Your task to perform on an android device: Open wifi settings Image 0: 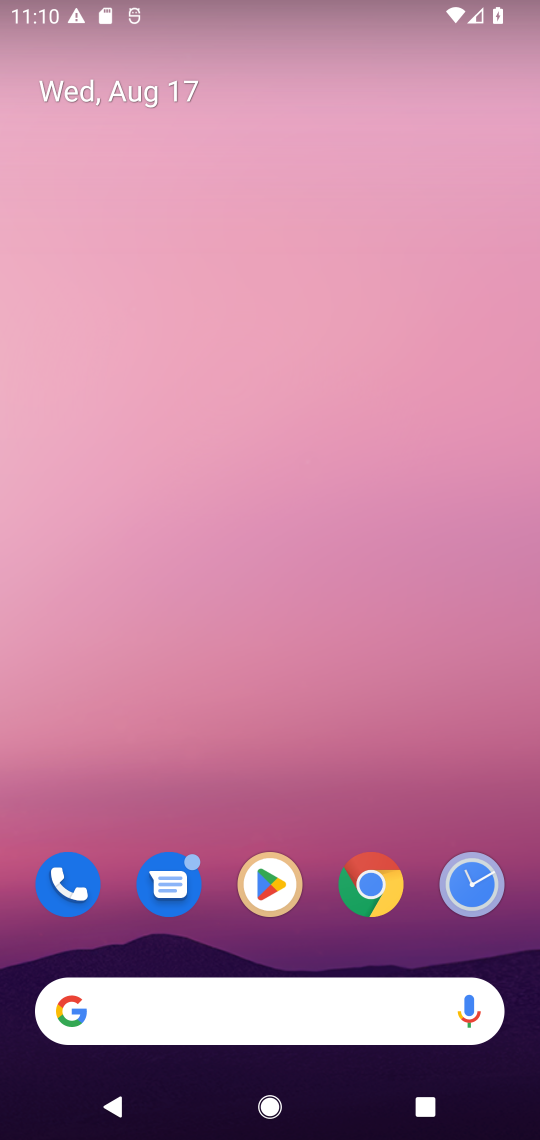
Step 0: press home button
Your task to perform on an android device: Open wifi settings Image 1: 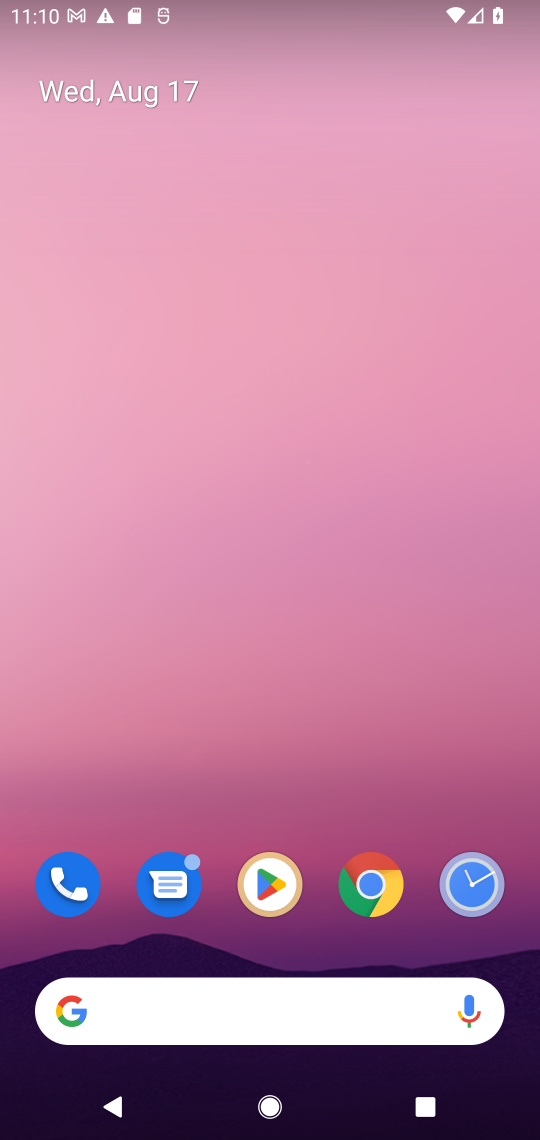
Step 1: drag from (351, 954) to (291, 149)
Your task to perform on an android device: Open wifi settings Image 2: 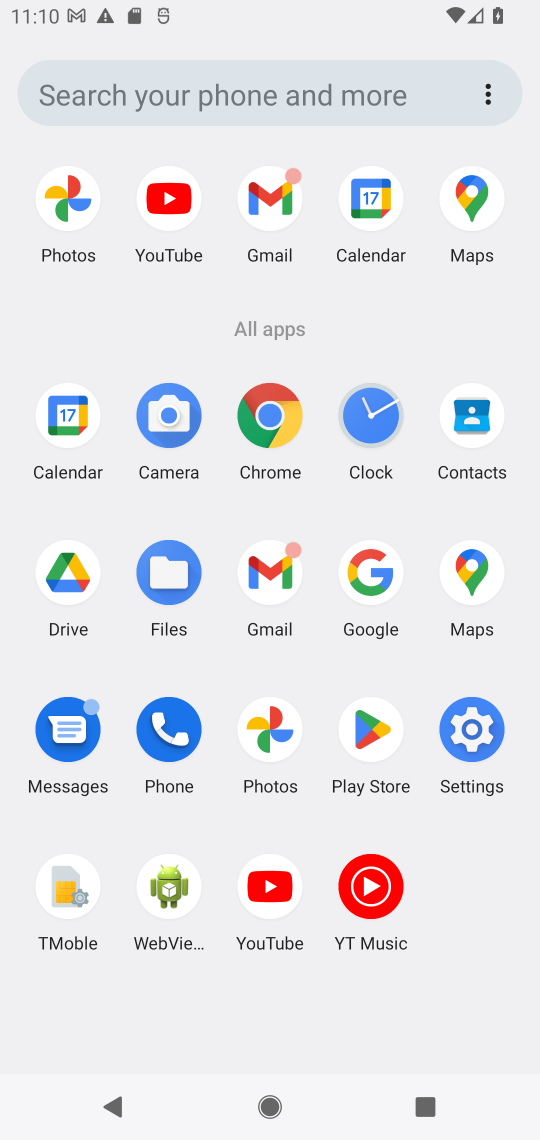
Step 2: click (471, 731)
Your task to perform on an android device: Open wifi settings Image 3: 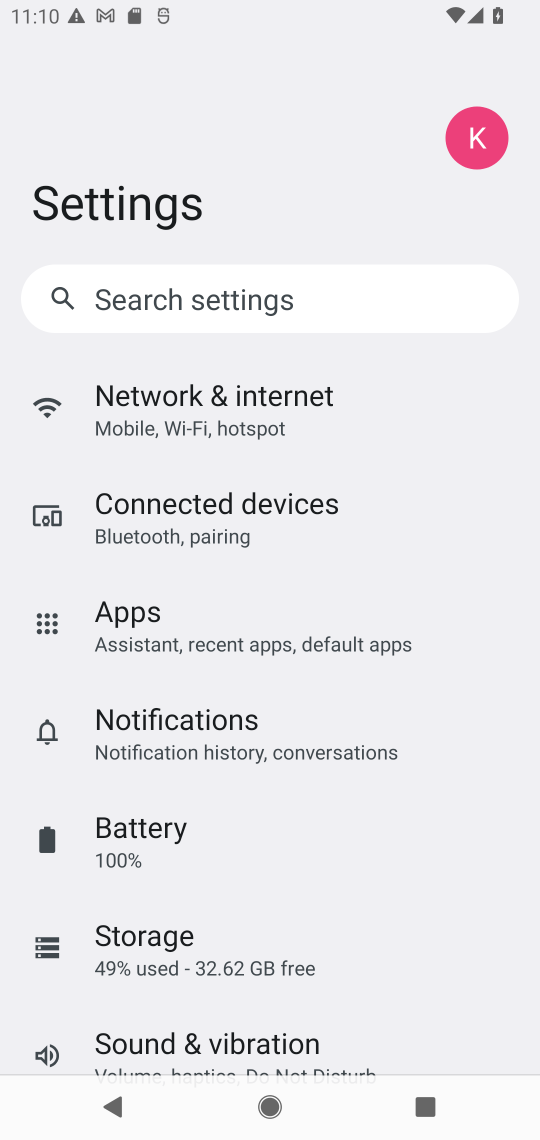
Step 3: click (252, 400)
Your task to perform on an android device: Open wifi settings Image 4: 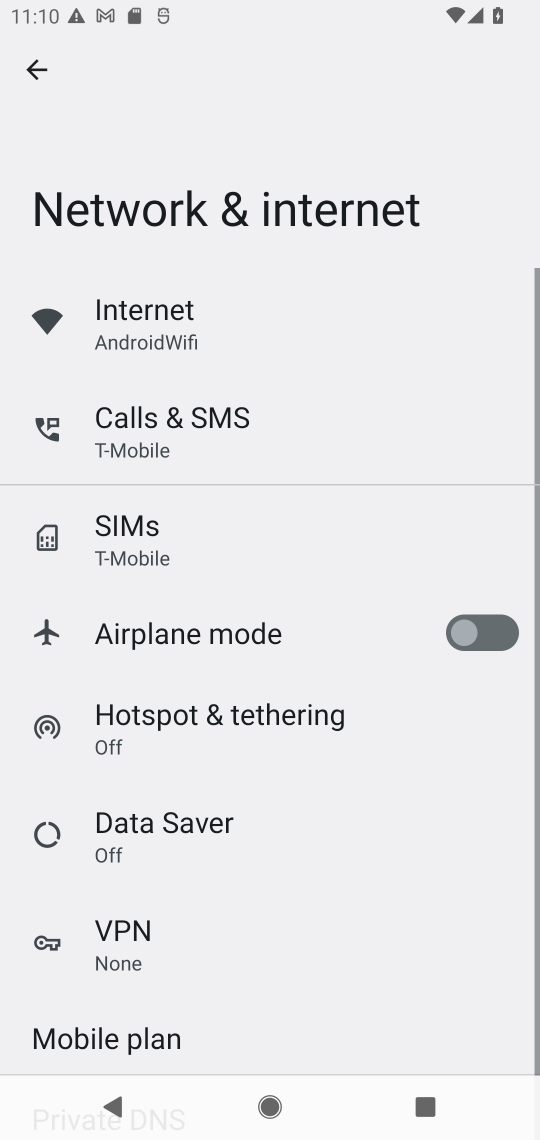
Step 4: click (134, 317)
Your task to perform on an android device: Open wifi settings Image 5: 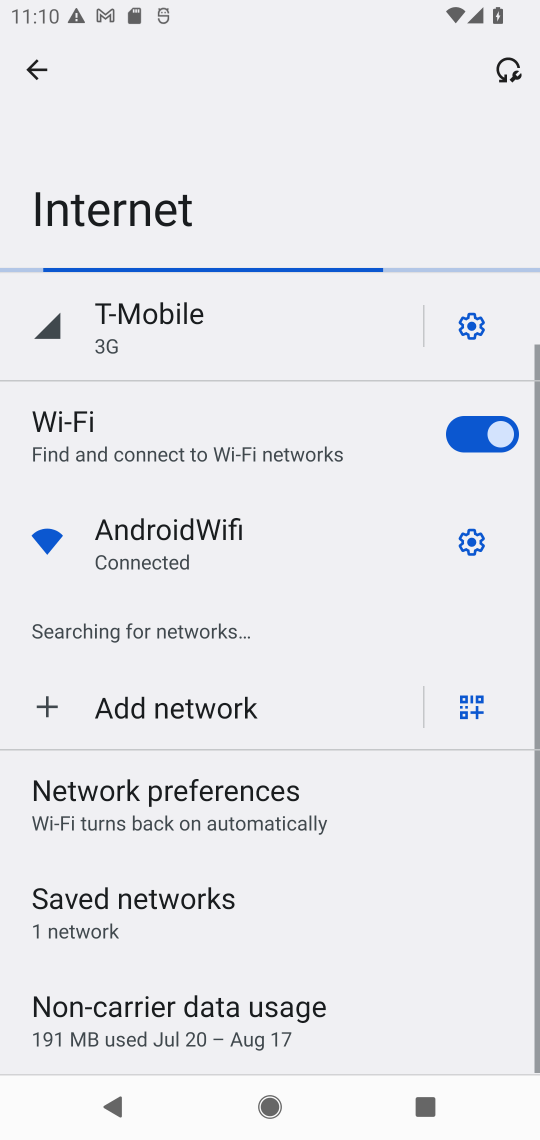
Step 5: click (127, 543)
Your task to perform on an android device: Open wifi settings Image 6: 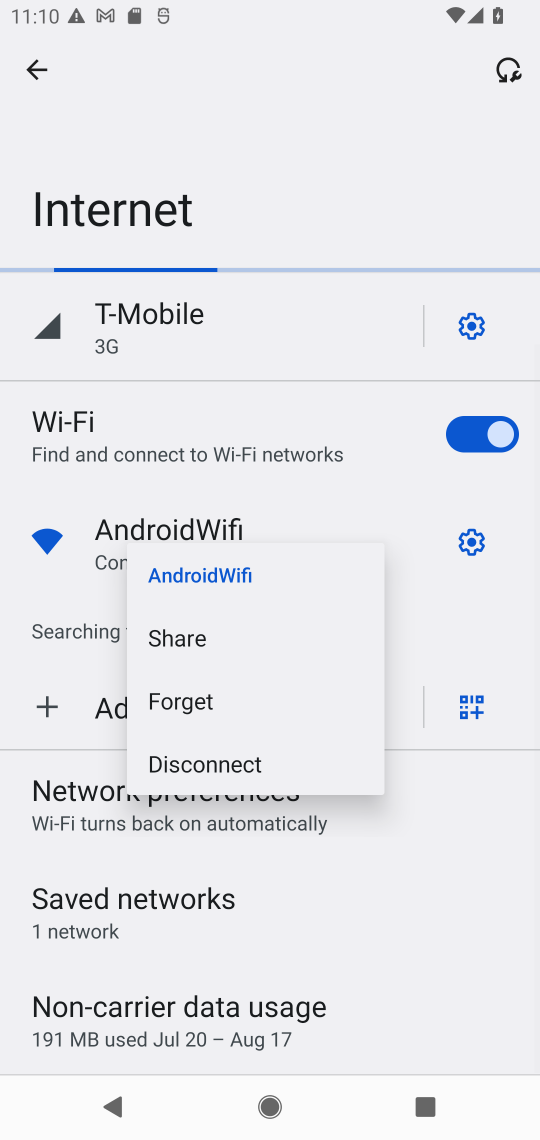
Step 6: click (127, 532)
Your task to perform on an android device: Open wifi settings Image 7: 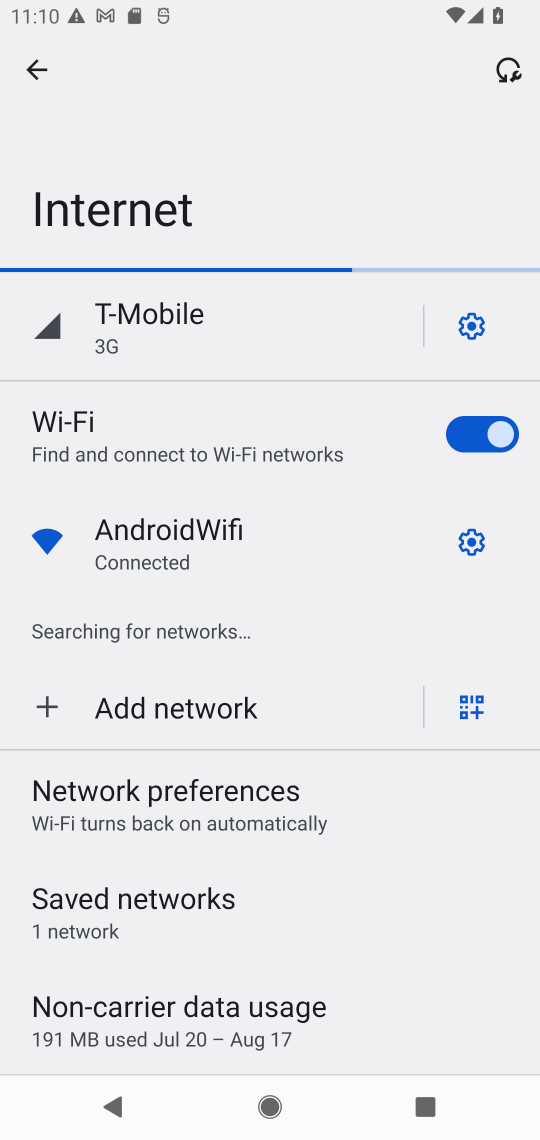
Step 7: click (127, 532)
Your task to perform on an android device: Open wifi settings Image 8: 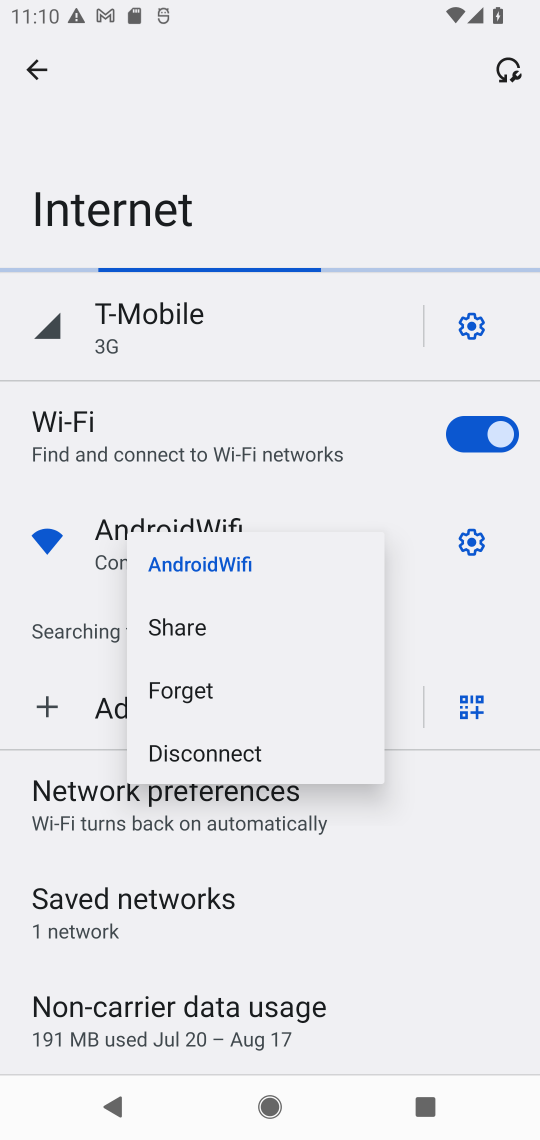
Step 8: click (99, 565)
Your task to perform on an android device: Open wifi settings Image 9: 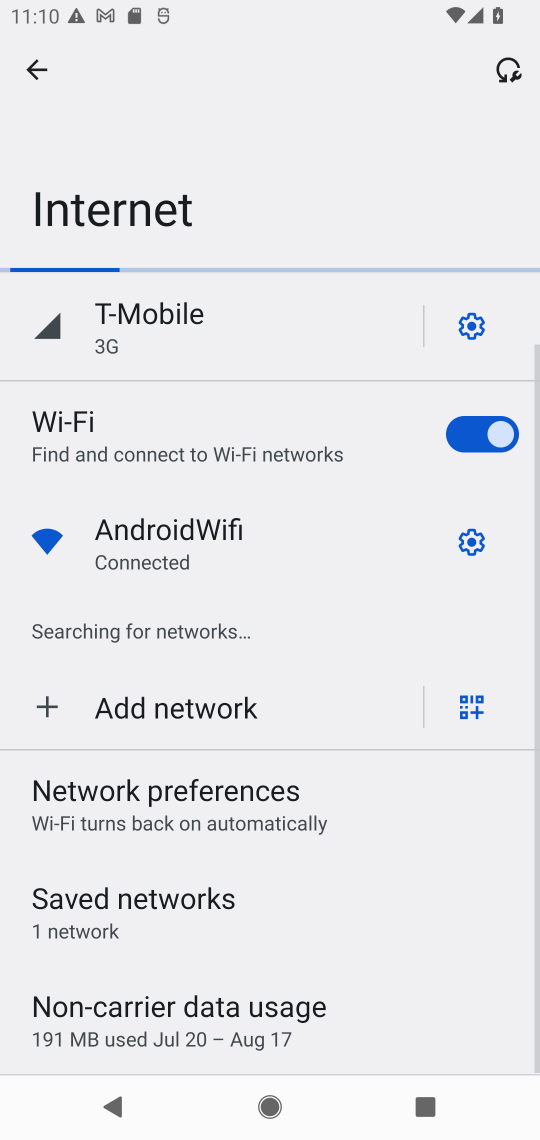
Step 9: click (463, 539)
Your task to perform on an android device: Open wifi settings Image 10: 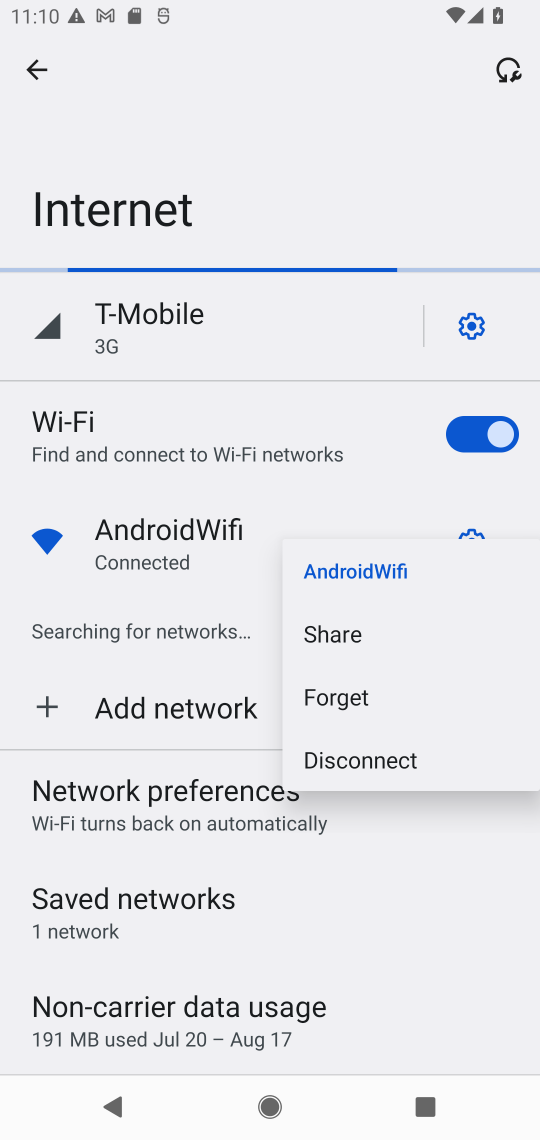
Step 10: click (200, 533)
Your task to perform on an android device: Open wifi settings Image 11: 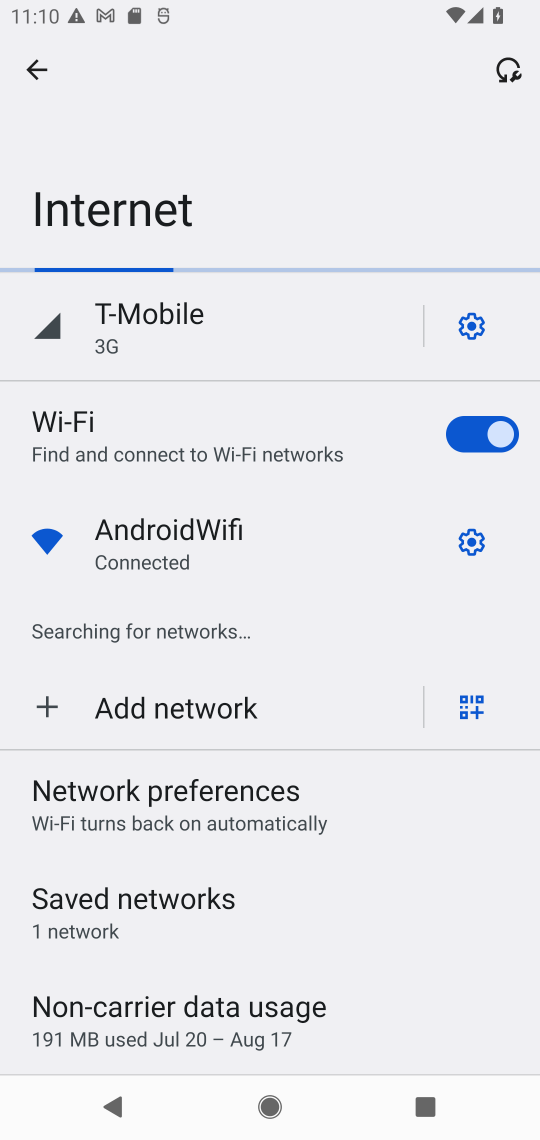
Step 11: click (194, 540)
Your task to perform on an android device: Open wifi settings Image 12: 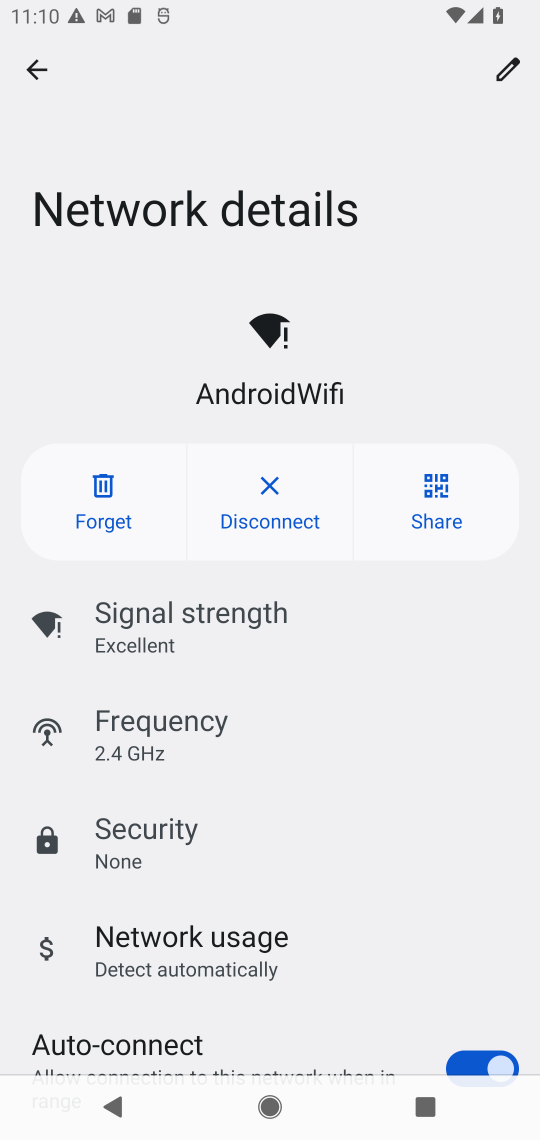
Step 12: task complete